Your task to perform on an android device: Open calendar and show me the third week of next month Image 0: 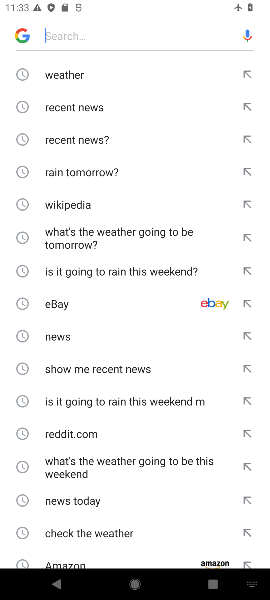
Step 0: press home button
Your task to perform on an android device: Open calendar and show me the third week of next month Image 1: 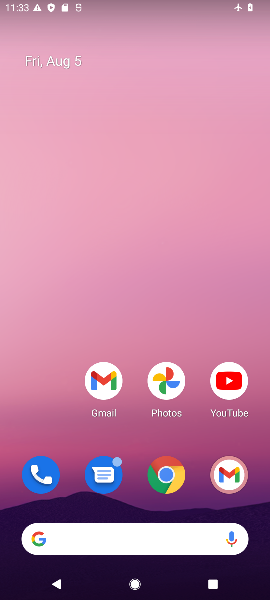
Step 1: drag from (132, 510) to (186, 8)
Your task to perform on an android device: Open calendar and show me the third week of next month Image 2: 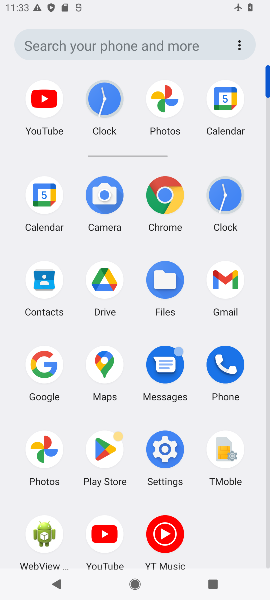
Step 2: click (46, 201)
Your task to perform on an android device: Open calendar and show me the third week of next month Image 3: 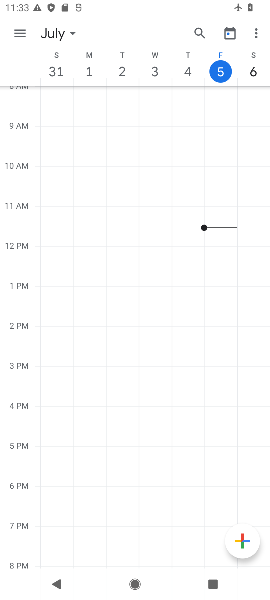
Step 3: task complete